Your task to perform on an android device: change the clock display to digital Image 0: 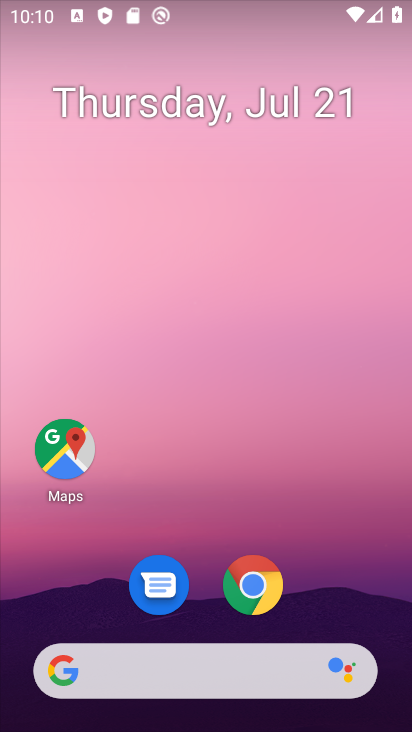
Step 0: drag from (229, 499) to (295, 59)
Your task to perform on an android device: change the clock display to digital Image 1: 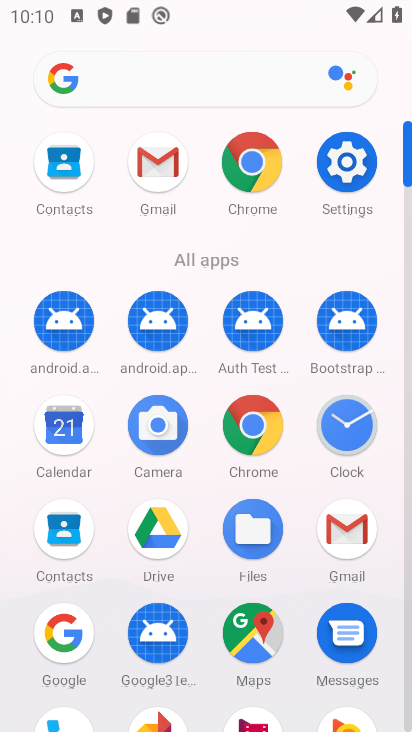
Step 1: click (330, 415)
Your task to perform on an android device: change the clock display to digital Image 2: 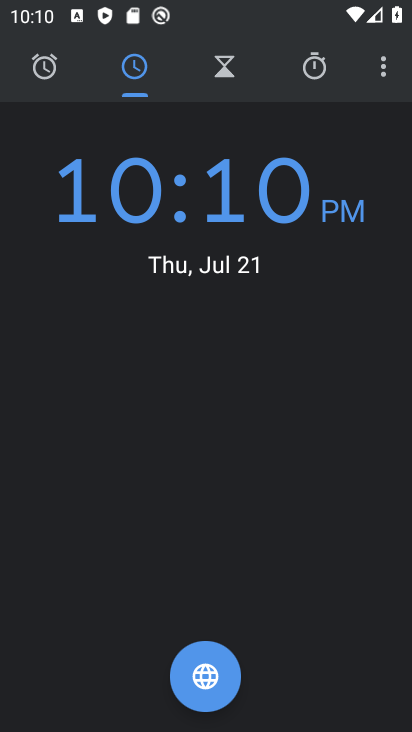
Step 2: task complete